Your task to perform on an android device: remove spam from my inbox in the gmail app Image 0: 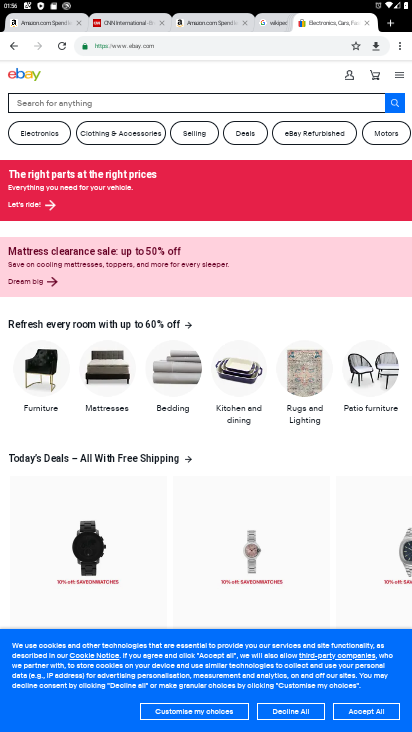
Step 0: press home button
Your task to perform on an android device: remove spam from my inbox in the gmail app Image 1: 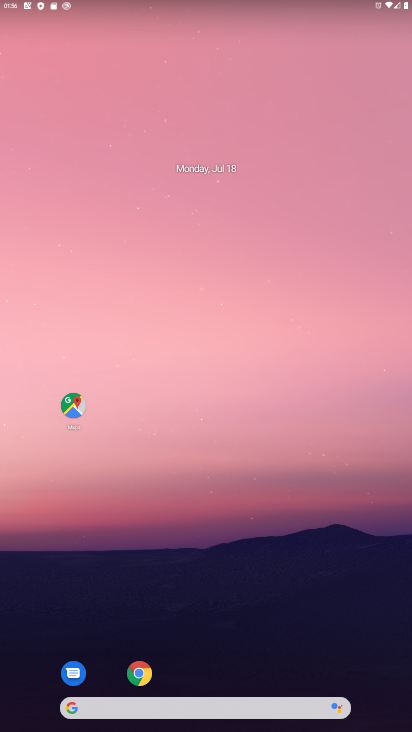
Step 1: drag from (287, 653) to (207, 123)
Your task to perform on an android device: remove spam from my inbox in the gmail app Image 2: 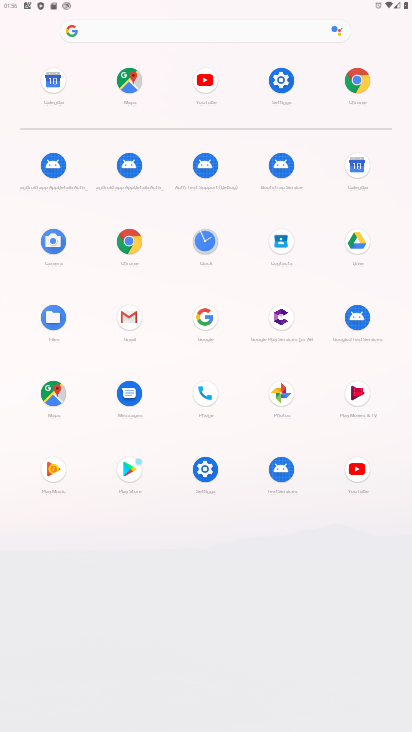
Step 2: click (137, 304)
Your task to perform on an android device: remove spam from my inbox in the gmail app Image 3: 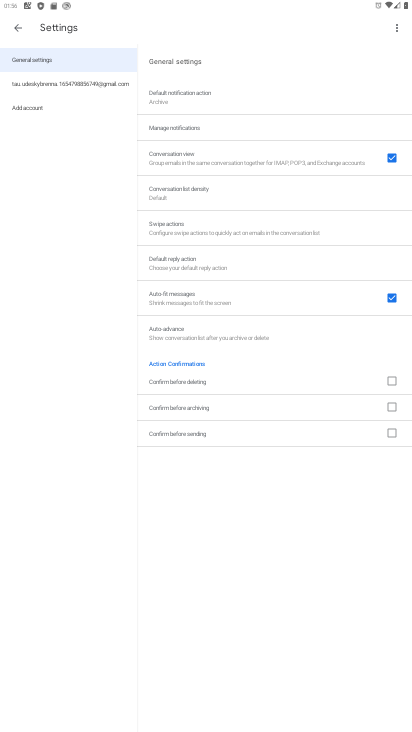
Step 3: task complete